Your task to perform on an android device: View the shopping cart on costco. Add usb-b to the cart on costco, then select checkout. Image 0: 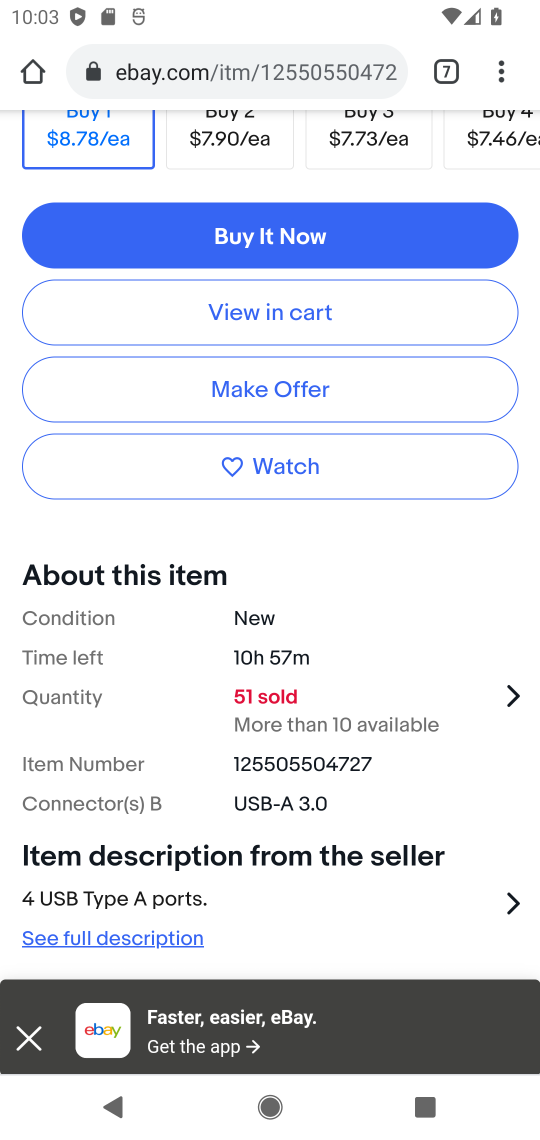
Step 0: click (447, 70)
Your task to perform on an android device: View the shopping cart on costco. Add usb-b to the cart on costco, then select checkout. Image 1: 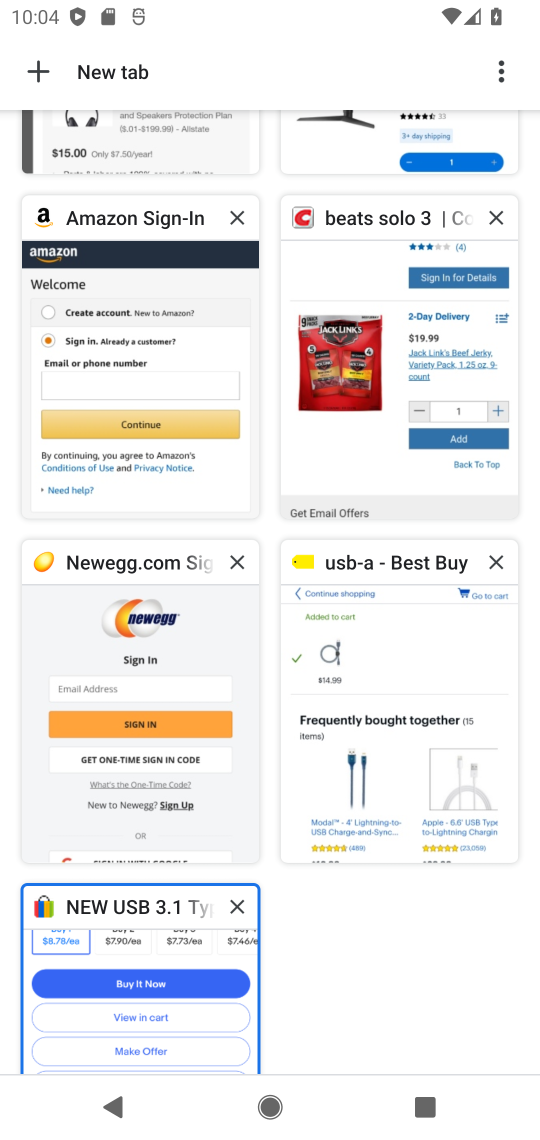
Step 1: click (374, 362)
Your task to perform on an android device: View the shopping cart on costco. Add usb-b to the cart on costco, then select checkout. Image 2: 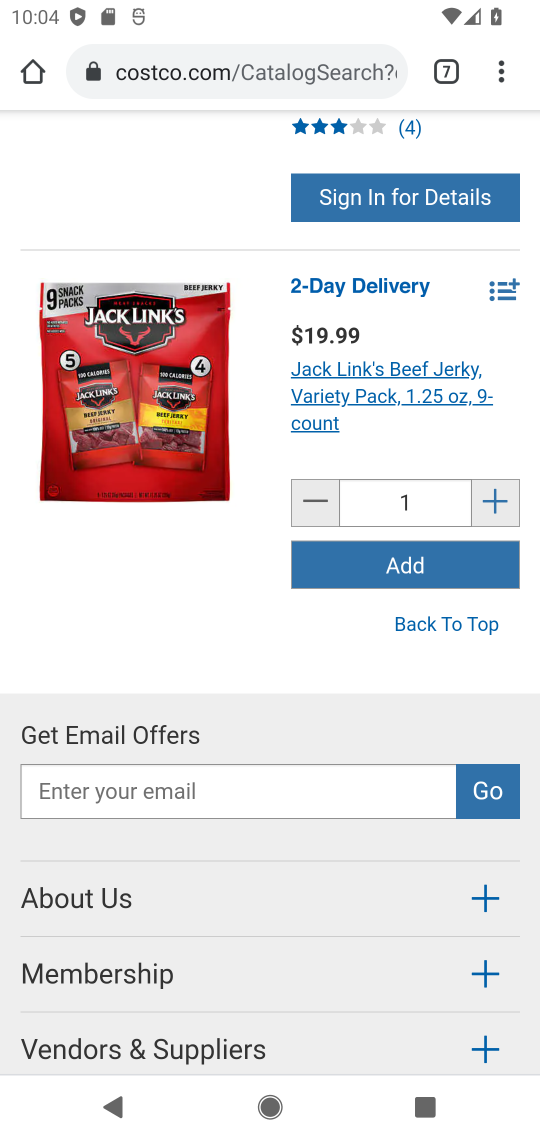
Step 2: drag from (246, 298) to (239, 1104)
Your task to perform on an android device: View the shopping cart on costco. Add usb-b to the cart on costco, then select checkout. Image 3: 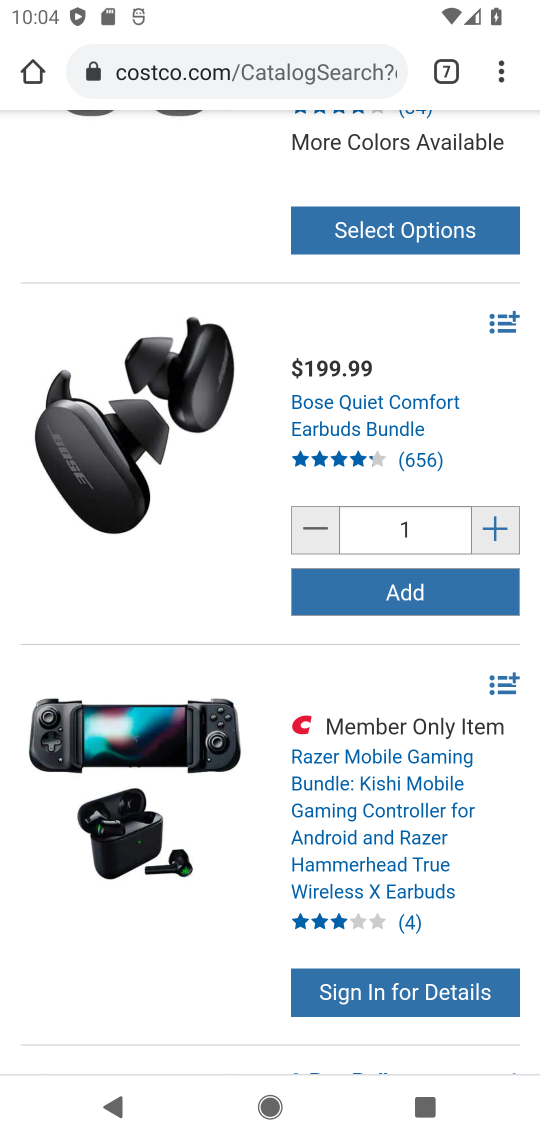
Step 3: drag from (455, 149) to (408, 872)
Your task to perform on an android device: View the shopping cart on costco. Add usb-b to the cart on costco, then select checkout. Image 4: 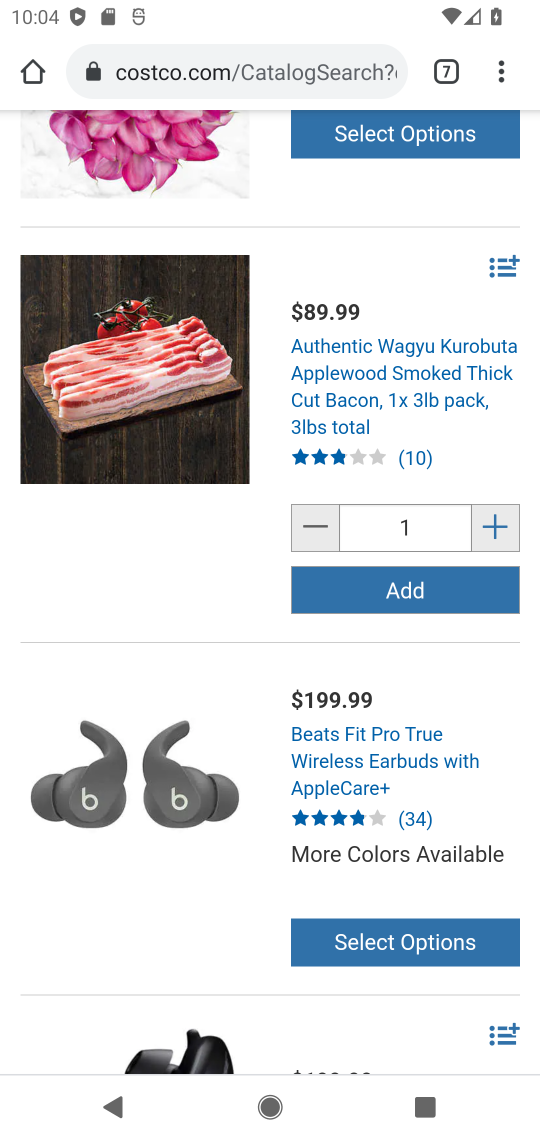
Step 4: drag from (417, 224) to (427, 840)
Your task to perform on an android device: View the shopping cart on costco. Add usb-b to the cart on costco, then select checkout. Image 5: 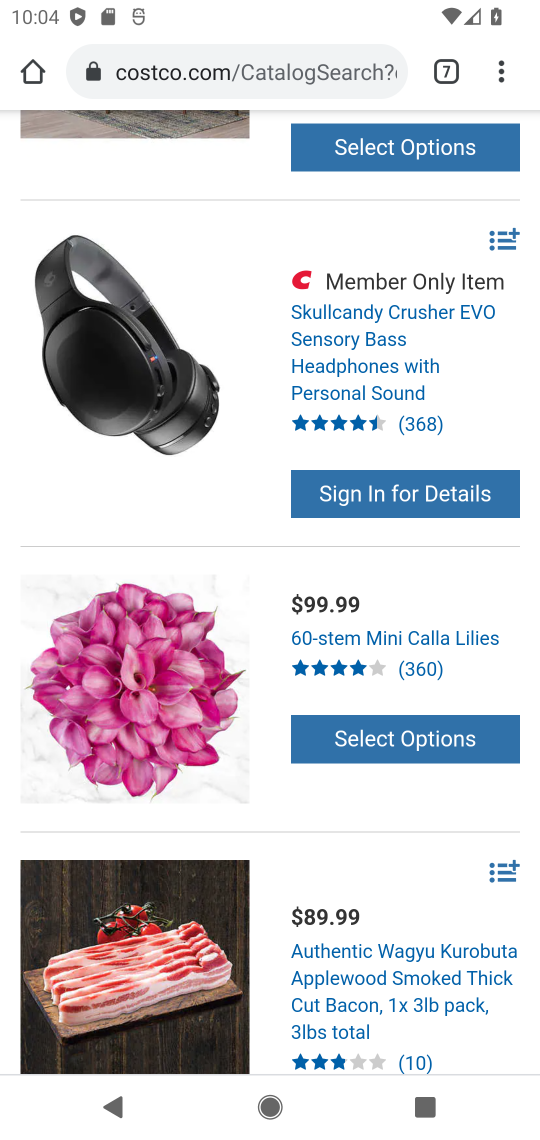
Step 5: drag from (390, 197) to (335, 982)
Your task to perform on an android device: View the shopping cart on costco. Add usb-b to the cart on costco, then select checkout. Image 6: 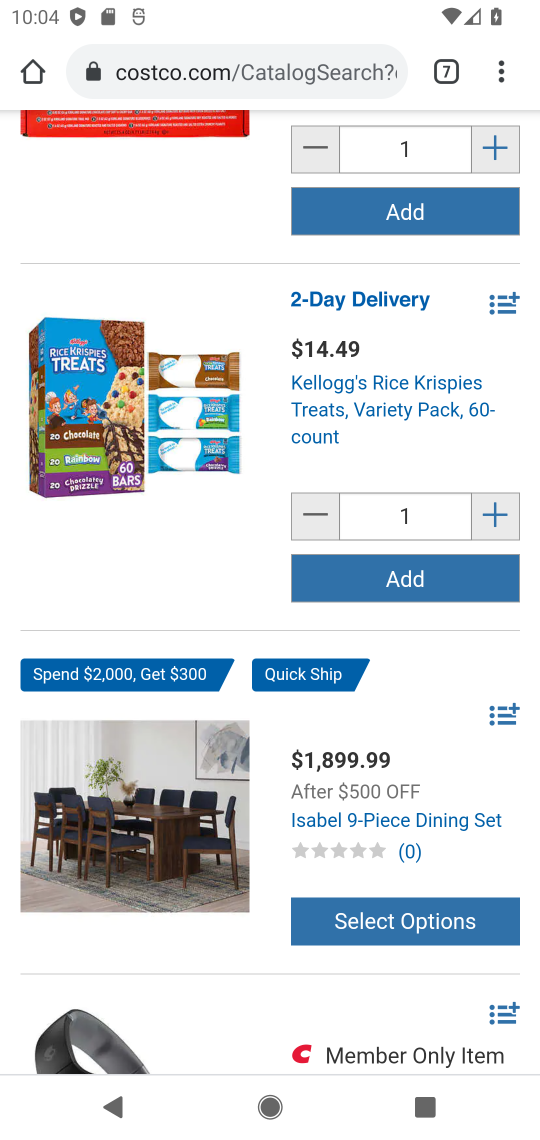
Step 6: drag from (182, 175) to (195, 865)
Your task to perform on an android device: View the shopping cart on costco. Add usb-b to the cart on costco, then select checkout. Image 7: 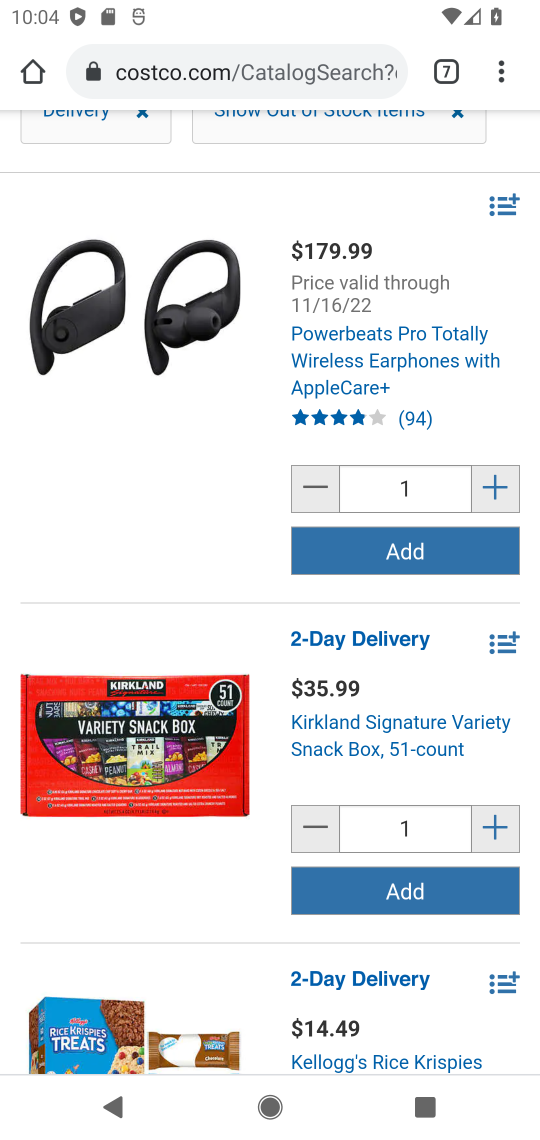
Step 7: drag from (327, 157) to (355, 668)
Your task to perform on an android device: View the shopping cart on costco. Add usb-b to the cart on costco, then select checkout. Image 8: 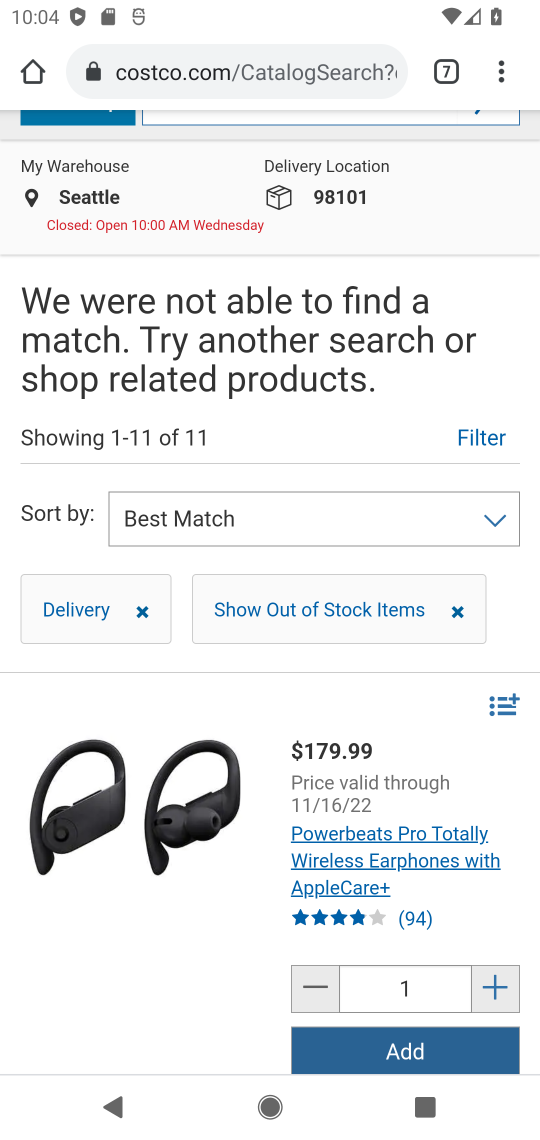
Step 8: drag from (451, 292) to (437, 648)
Your task to perform on an android device: View the shopping cart on costco. Add usb-b to the cart on costco, then select checkout. Image 9: 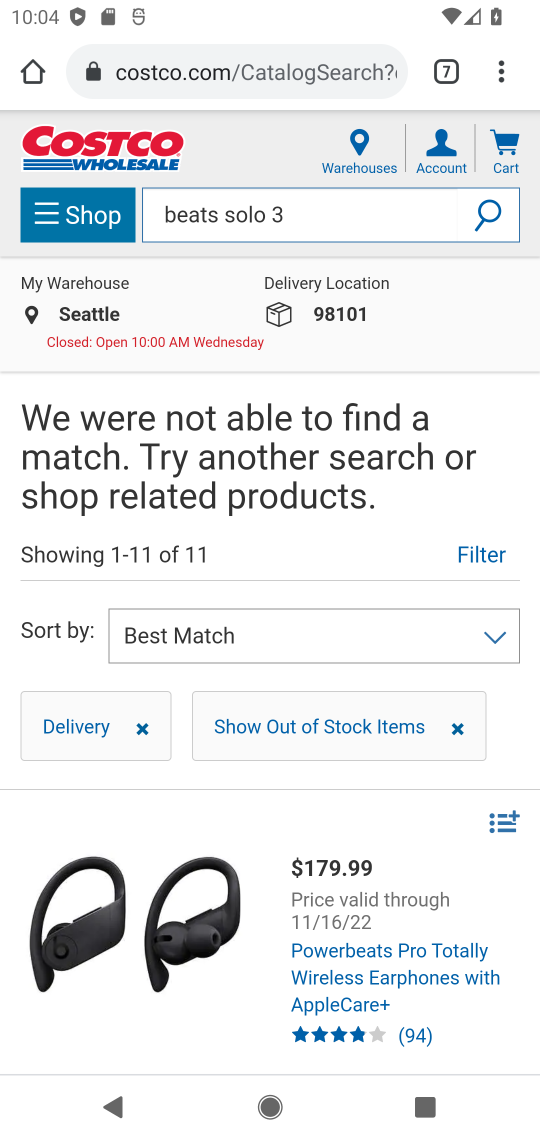
Step 9: click (321, 213)
Your task to perform on an android device: View the shopping cart on costco. Add usb-b to the cart on costco, then select checkout. Image 10: 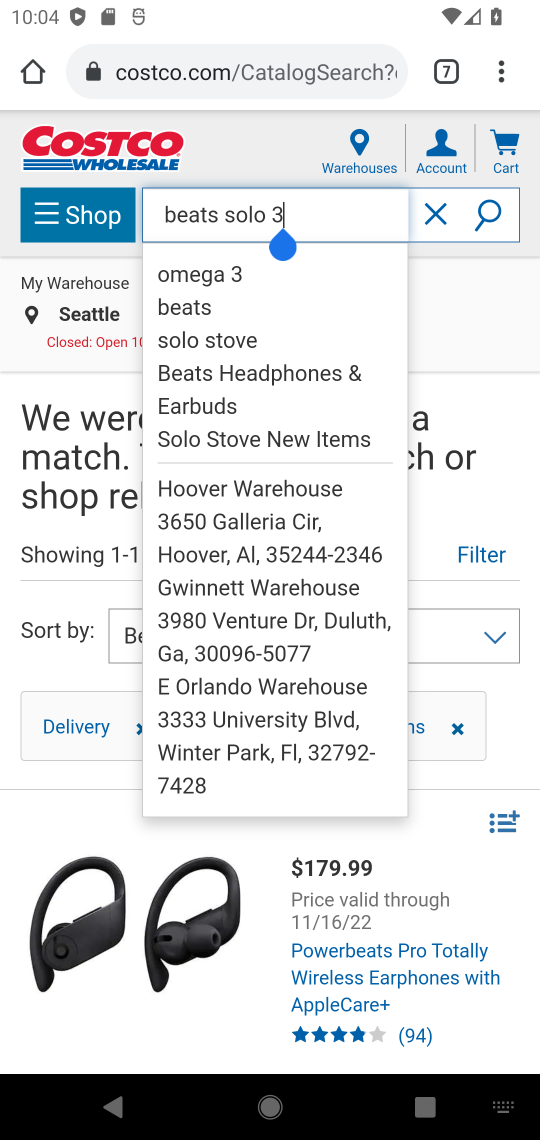
Step 10: click (431, 211)
Your task to perform on an android device: View the shopping cart on costco. Add usb-b to the cart on costco, then select checkout. Image 11: 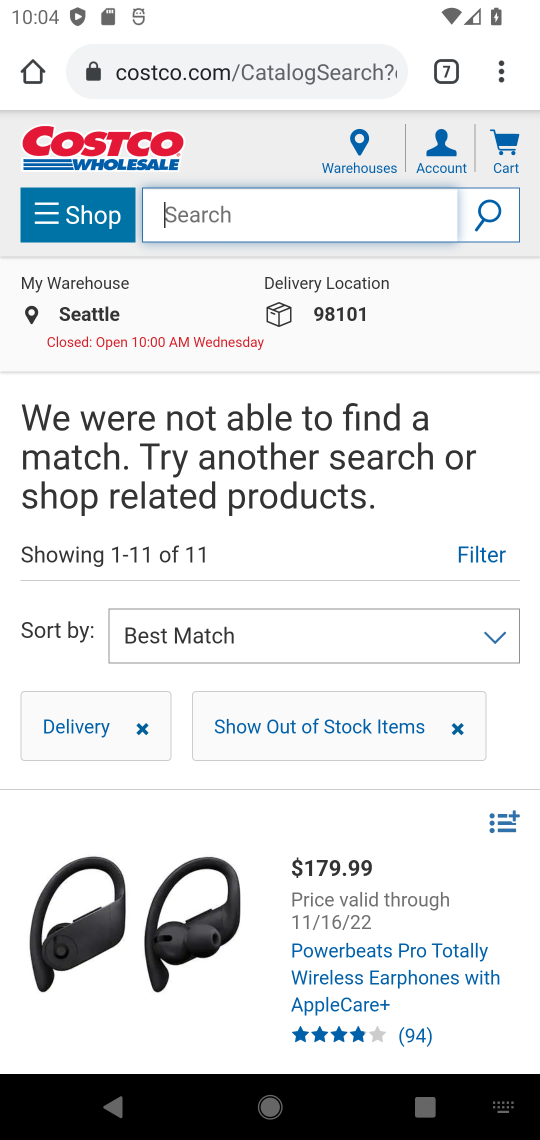
Step 11: type " usb-b"
Your task to perform on an android device: View the shopping cart on costco. Add usb-b to the cart on costco, then select checkout. Image 12: 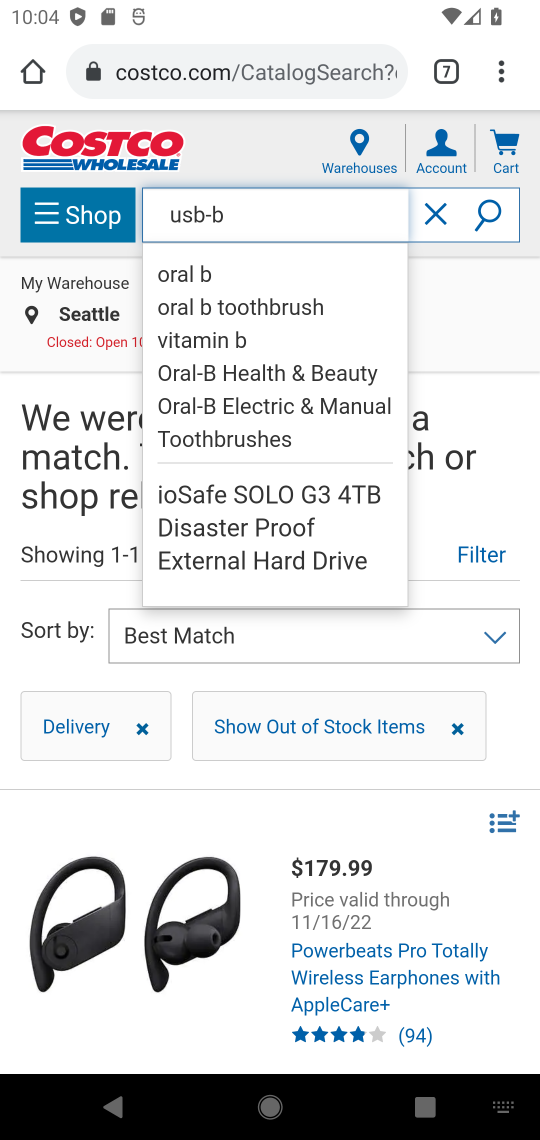
Step 12: click (489, 206)
Your task to perform on an android device: View the shopping cart on costco. Add usb-b to the cart on costco, then select checkout. Image 13: 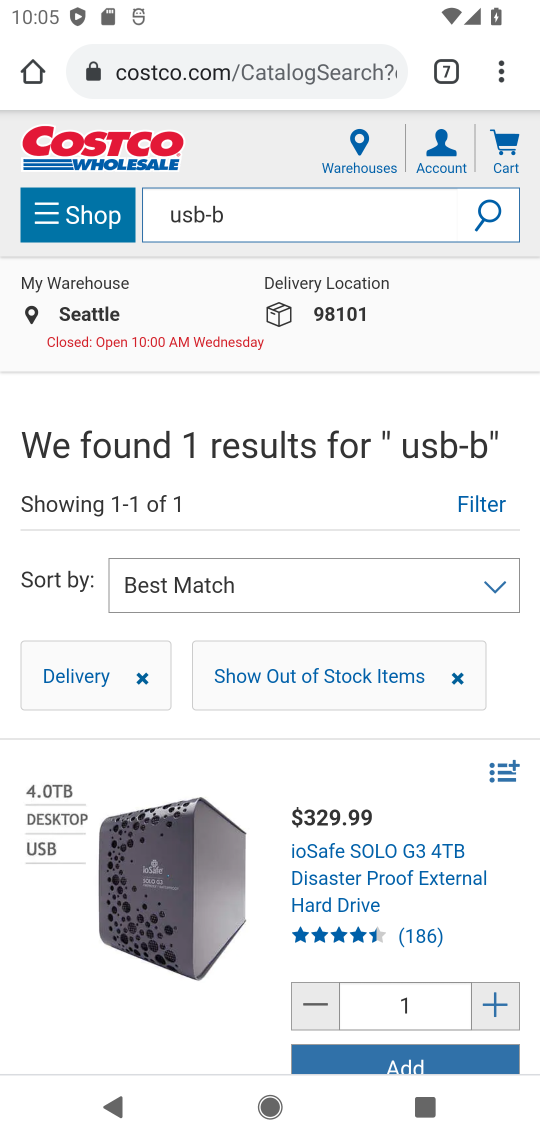
Step 13: task complete